Your task to perform on an android device: Open calendar and show me the third week of next month Image 0: 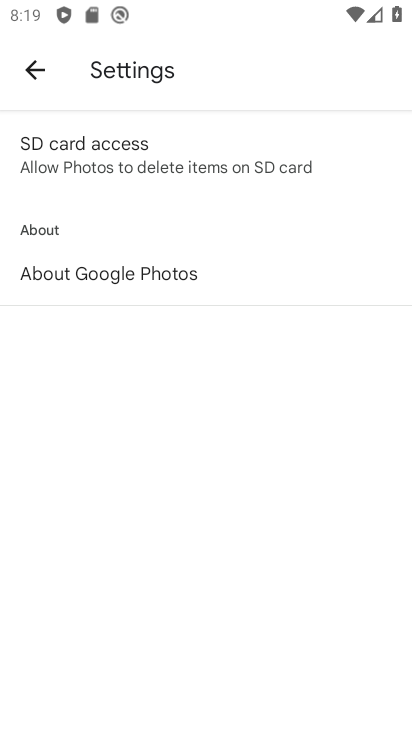
Step 0: press home button
Your task to perform on an android device: Open calendar and show me the third week of next month Image 1: 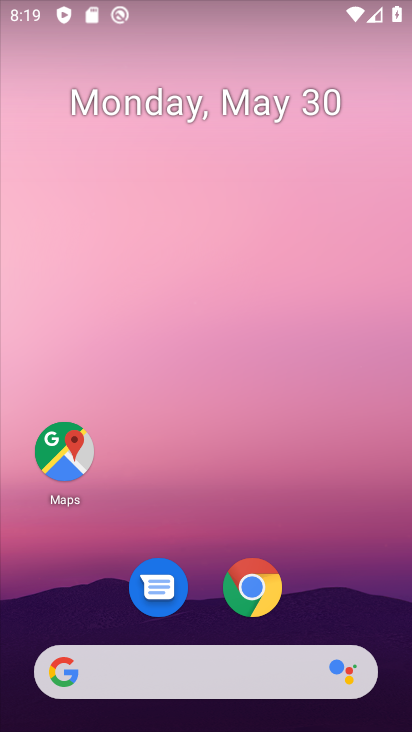
Step 1: drag from (208, 528) to (244, 64)
Your task to perform on an android device: Open calendar and show me the third week of next month Image 2: 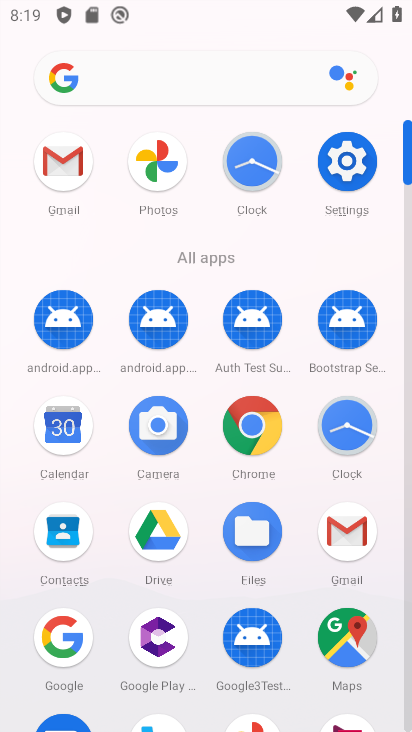
Step 2: click (69, 438)
Your task to perform on an android device: Open calendar and show me the third week of next month Image 3: 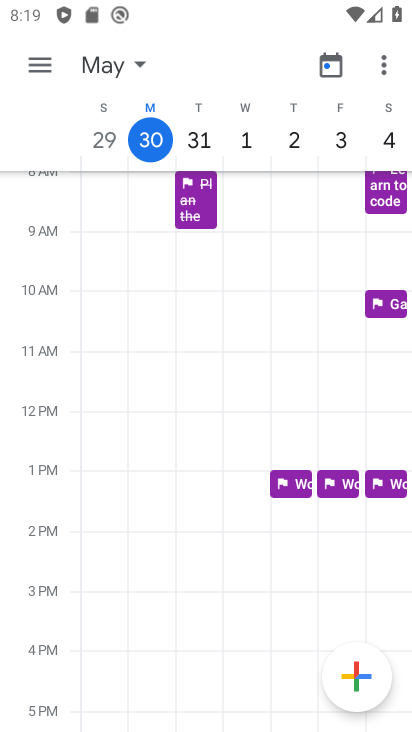
Step 3: task complete